Your task to perform on an android device: Open the Play Movies app and select the watchlist tab. Image 0: 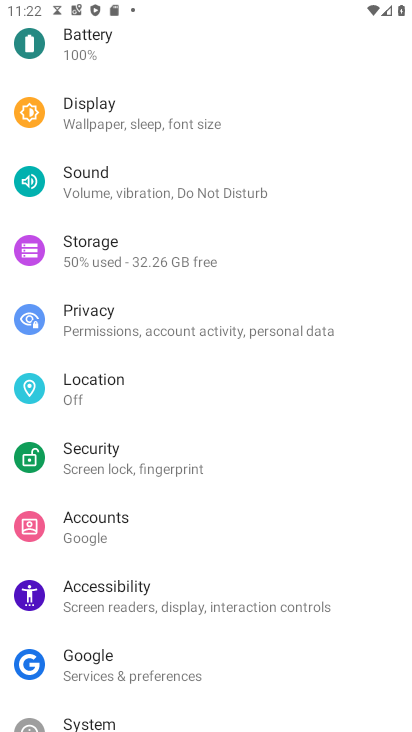
Step 0: press home button
Your task to perform on an android device: Open the Play Movies app and select the watchlist tab. Image 1: 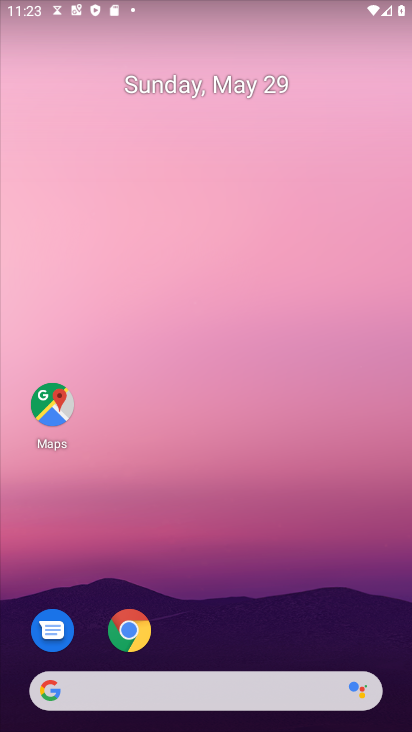
Step 1: drag from (260, 559) to (266, 73)
Your task to perform on an android device: Open the Play Movies app and select the watchlist tab. Image 2: 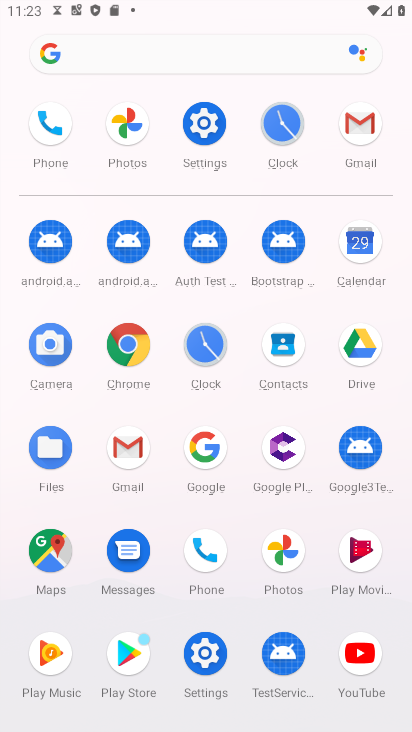
Step 2: click (347, 552)
Your task to perform on an android device: Open the Play Movies app and select the watchlist tab. Image 3: 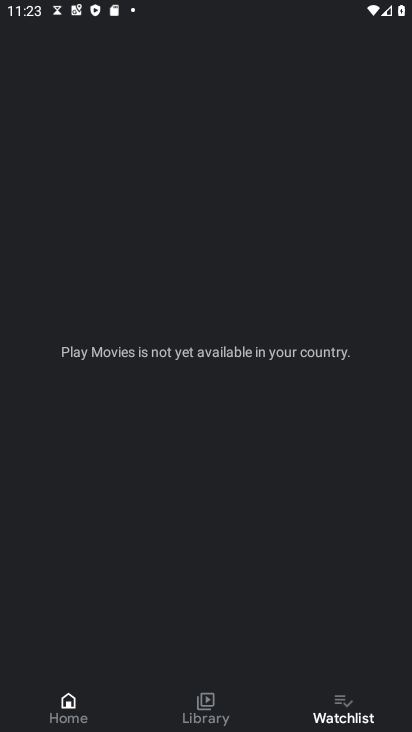
Step 3: click (351, 690)
Your task to perform on an android device: Open the Play Movies app and select the watchlist tab. Image 4: 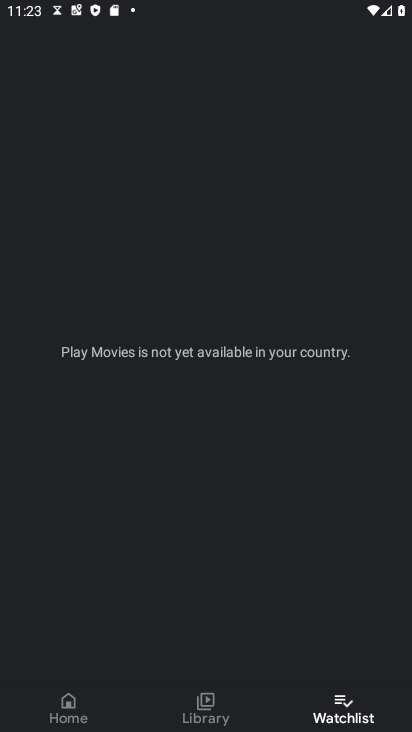
Step 4: task complete